Your task to perform on an android device: Check out the top rated books on Goodreads. Image 0: 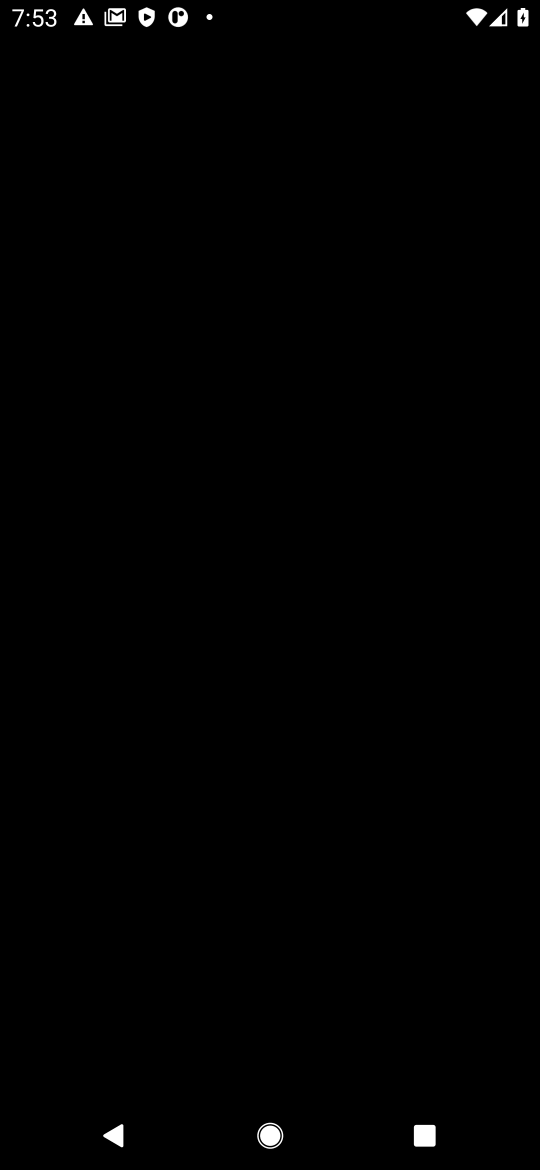
Step 0: press home button
Your task to perform on an android device: Check out the top rated books on Goodreads. Image 1: 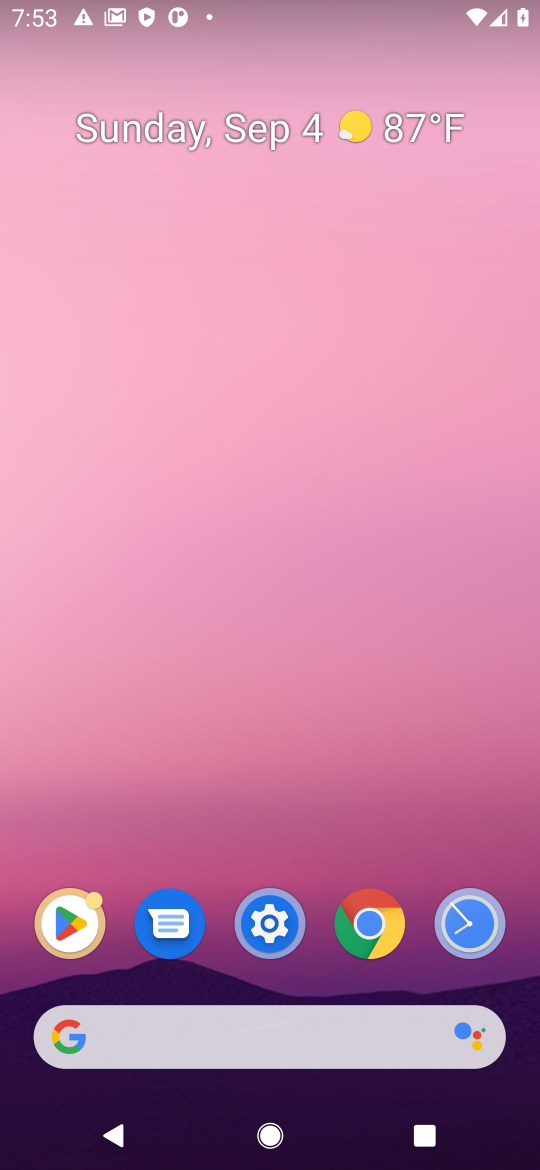
Step 1: click (407, 1035)
Your task to perform on an android device: Check out the top rated books on Goodreads. Image 2: 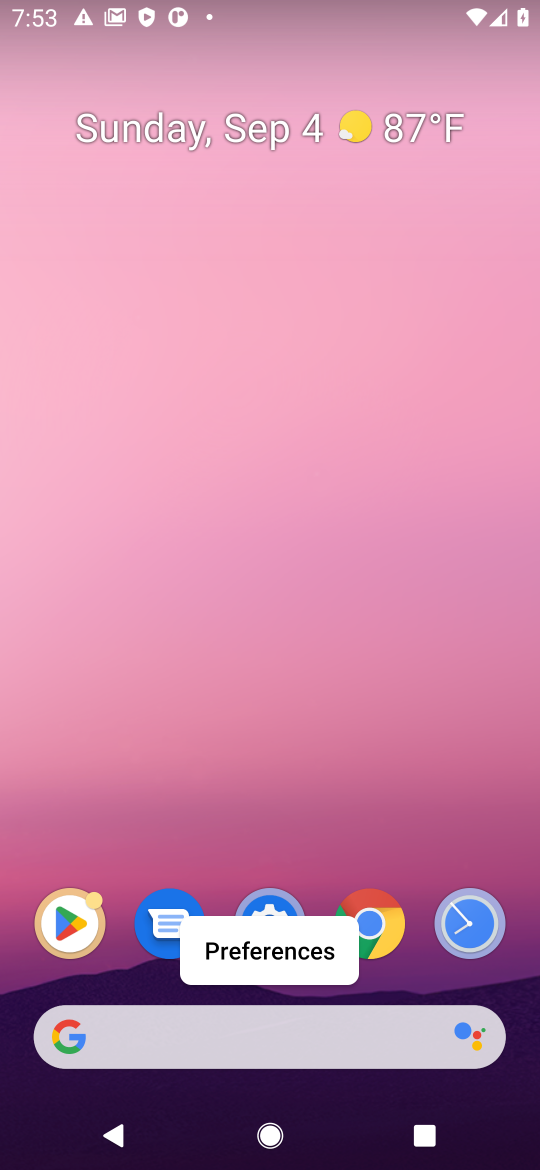
Step 2: click (407, 1035)
Your task to perform on an android device: Check out the top rated books on Goodreads. Image 3: 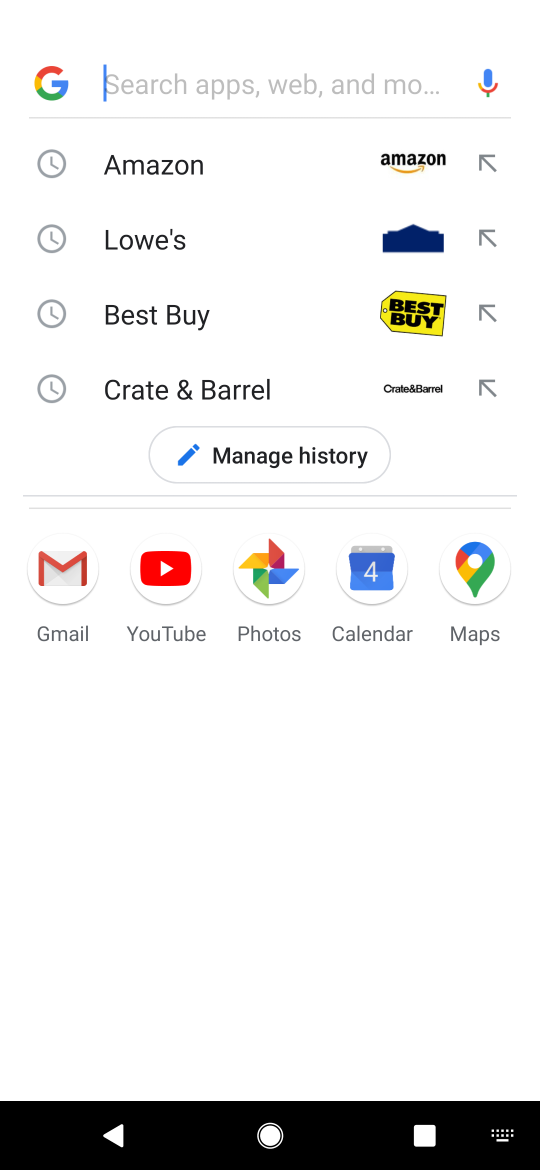
Step 3: press enter
Your task to perform on an android device: Check out the top rated books on Goodreads. Image 4: 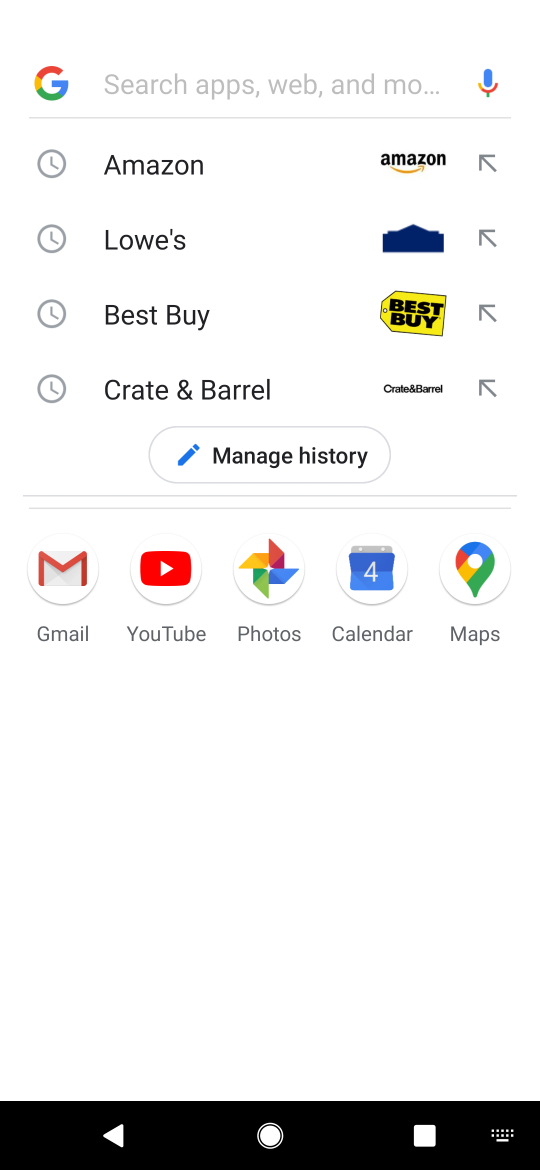
Step 4: type "goodreads"
Your task to perform on an android device: Check out the top rated books on Goodreads. Image 5: 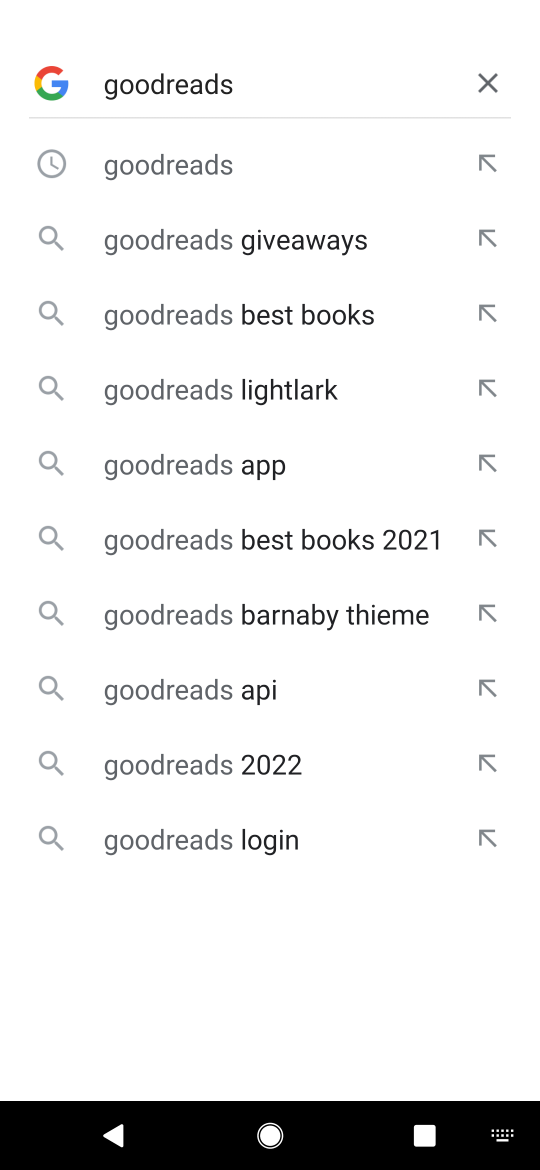
Step 5: click (213, 155)
Your task to perform on an android device: Check out the top rated books on Goodreads. Image 6: 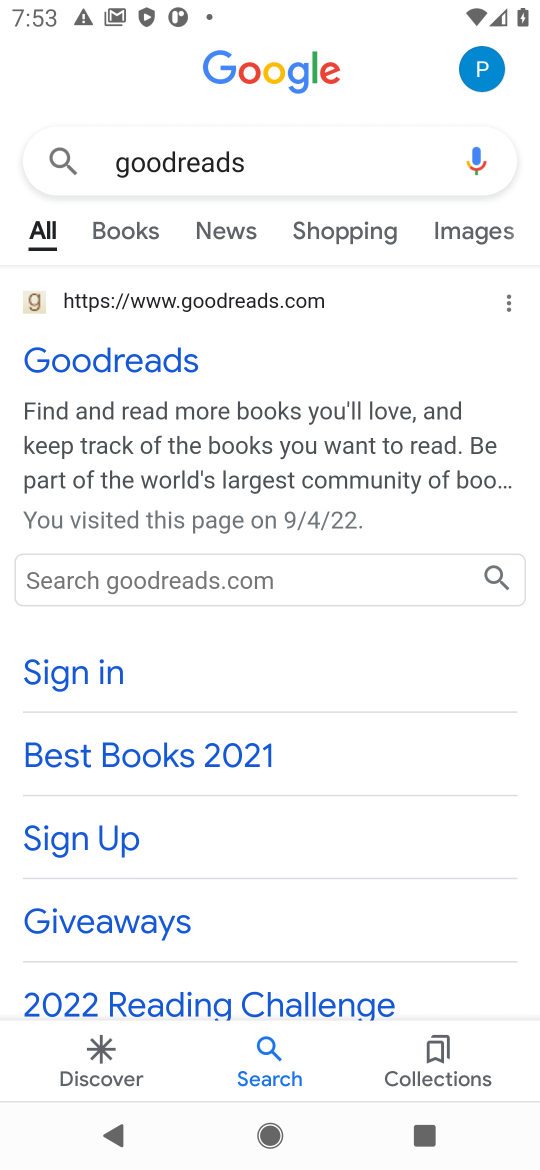
Step 6: click (169, 353)
Your task to perform on an android device: Check out the top rated books on Goodreads. Image 7: 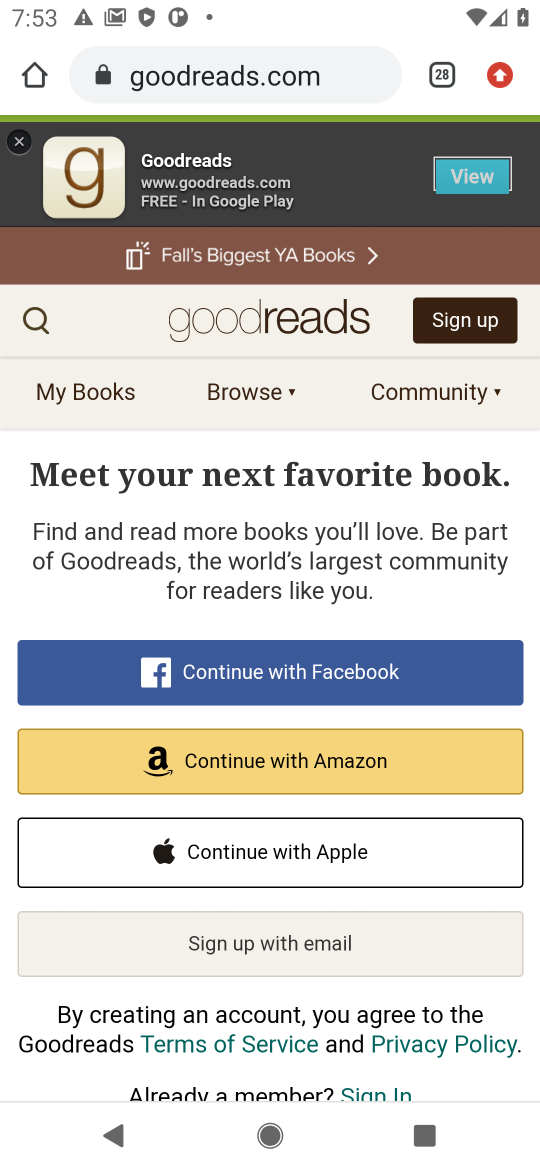
Step 7: click (63, 329)
Your task to perform on an android device: Check out the top rated books on Goodreads. Image 8: 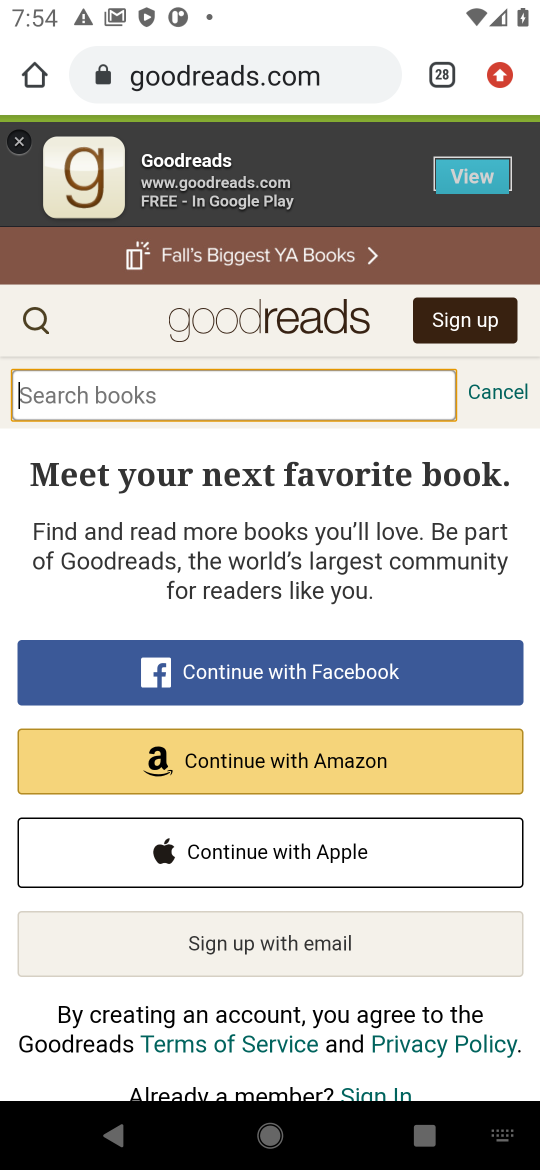
Step 8: type "top rated books "
Your task to perform on an android device: Check out the top rated books on Goodreads. Image 9: 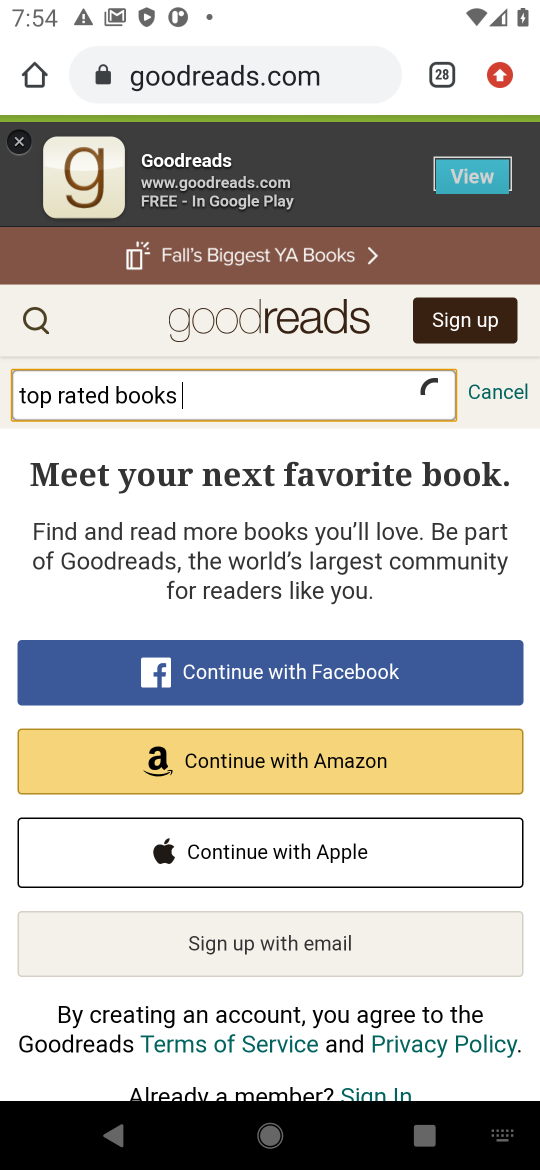
Step 9: press enter
Your task to perform on an android device: Check out the top rated books on Goodreads. Image 10: 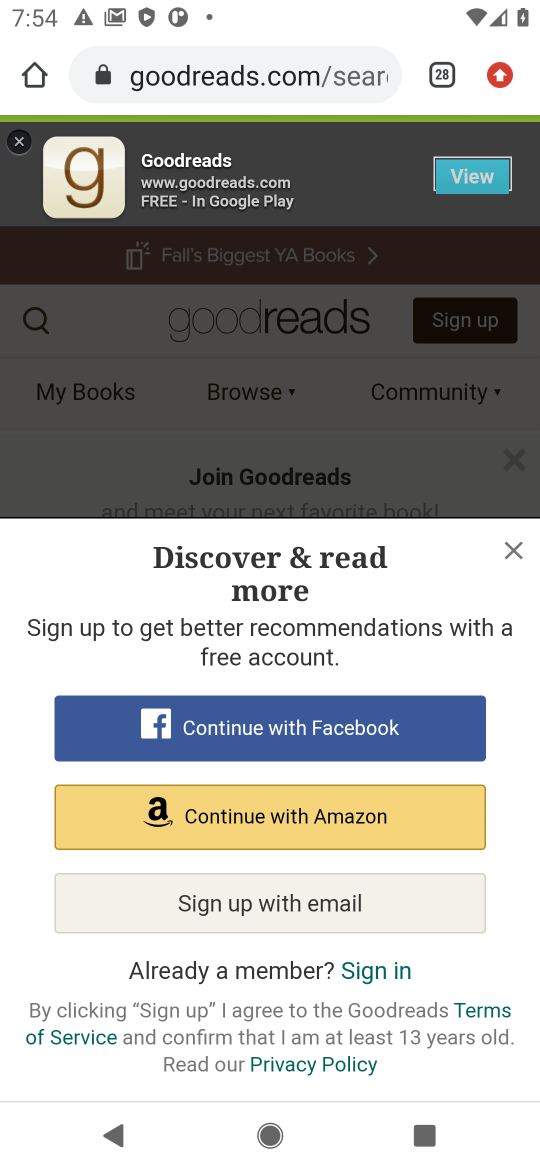
Step 10: click (515, 546)
Your task to perform on an android device: Check out the top rated books on Goodreads. Image 11: 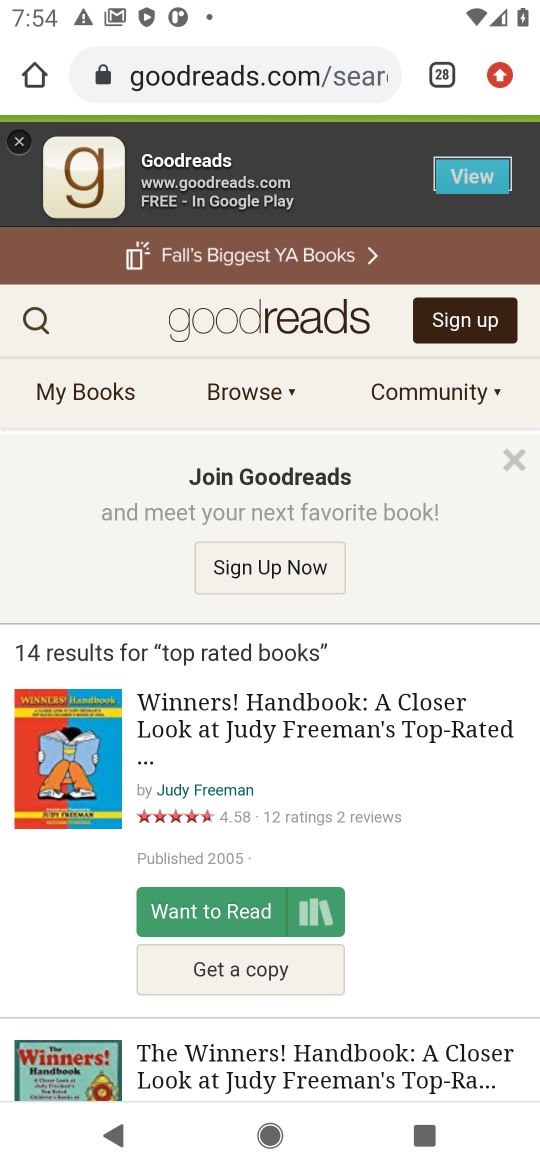
Step 11: task complete